Your task to perform on an android device: delete a single message in the gmail app Image 0: 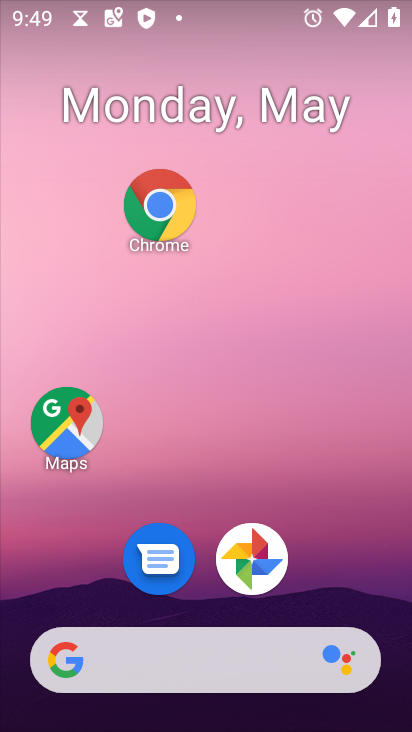
Step 0: drag from (276, 668) to (217, 30)
Your task to perform on an android device: delete a single message in the gmail app Image 1: 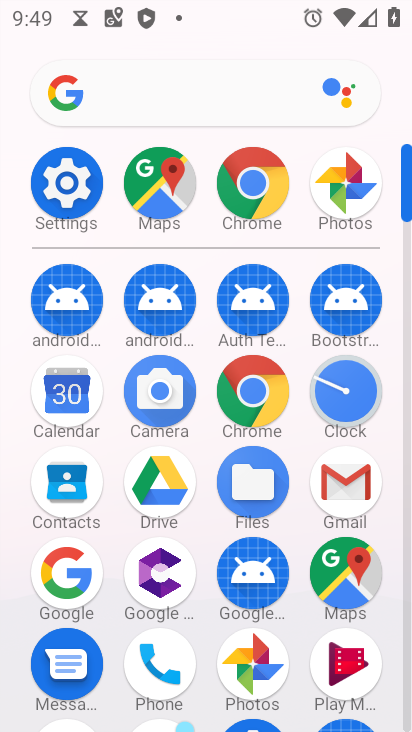
Step 1: click (334, 459)
Your task to perform on an android device: delete a single message in the gmail app Image 2: 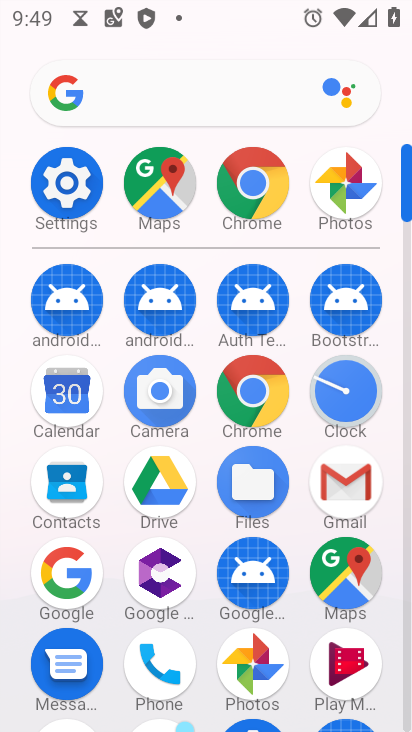
Step 2: click (340, 467)
Your task to perform on an android device: delete a single message in the gmail app Image 3: 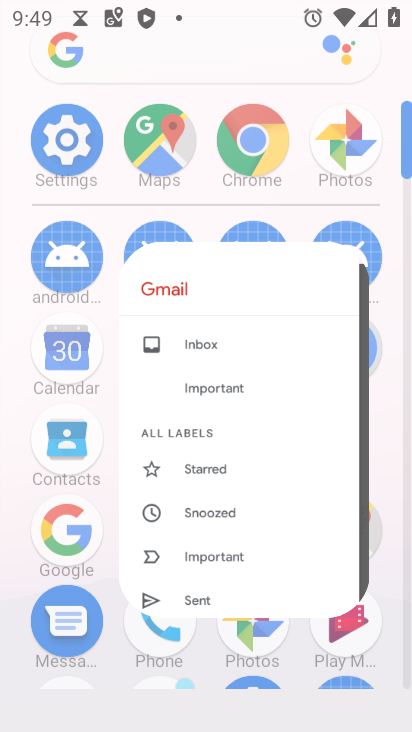
Step 3: click (341, 468)
Your task to perform on an android device: delete a single message in the gmail app Image 4: 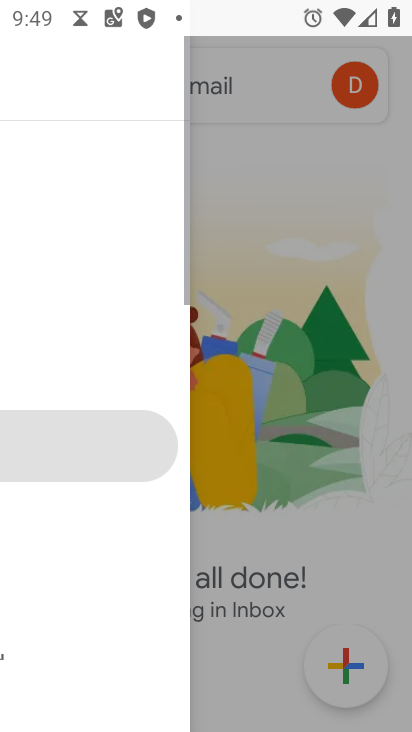
Step 4: click (341, 468)
Your task to perform on an android device: delete a single message in the gmail app Image 5: 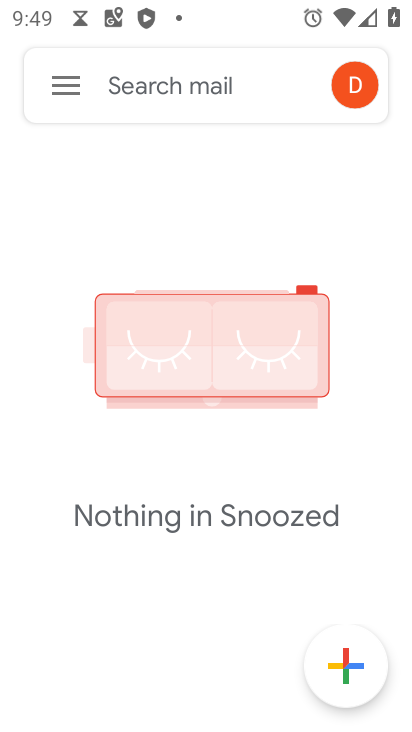
Step 5: click (68, 78)
Your task to perform on an android device: delete a single message in the gmail app Image 6: 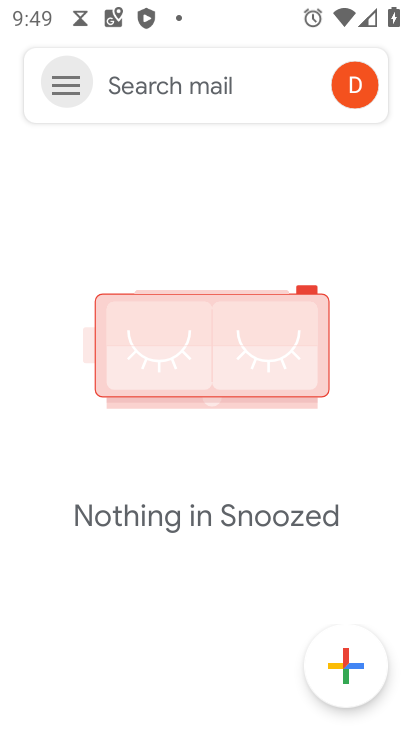
Step 6: click (66, 78)
Your task to perform on an android device: delete a single message in the gmail app Image 7: 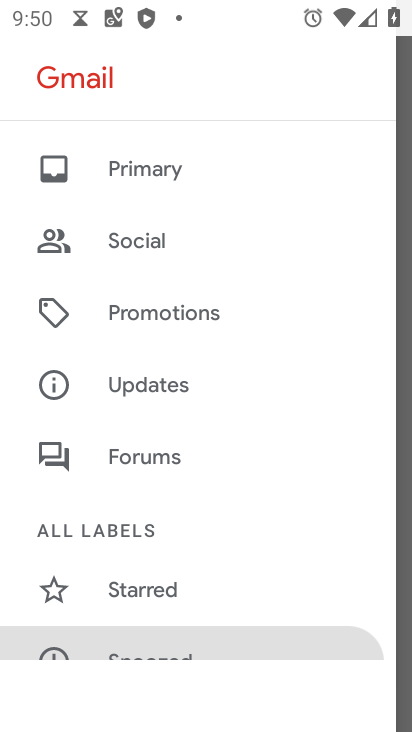
Step 7: click (407, 393)
Your task to perform on an android device: delete a single message in the gmail app Image 8: 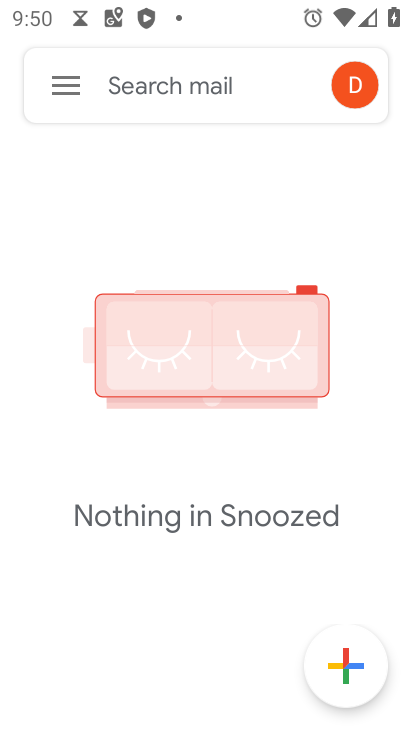
Step 8: click (71, 86)
Your task to perform on an android device: delete a single message in the gmail app Image 9: 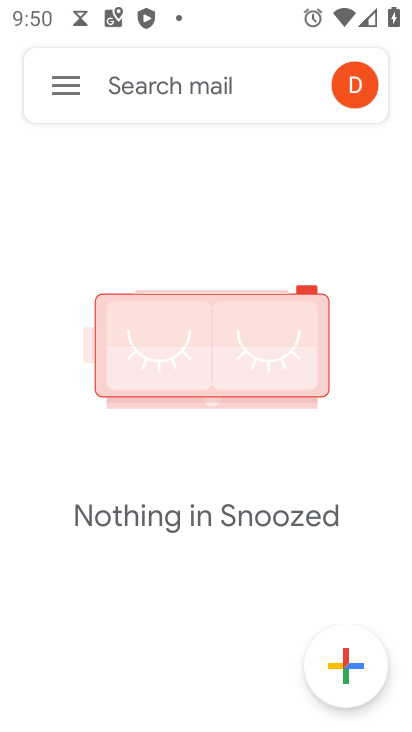
Step 9: click (71, 87)
Your task to perform on an android device: delete a single message in the gmail app Image 10: 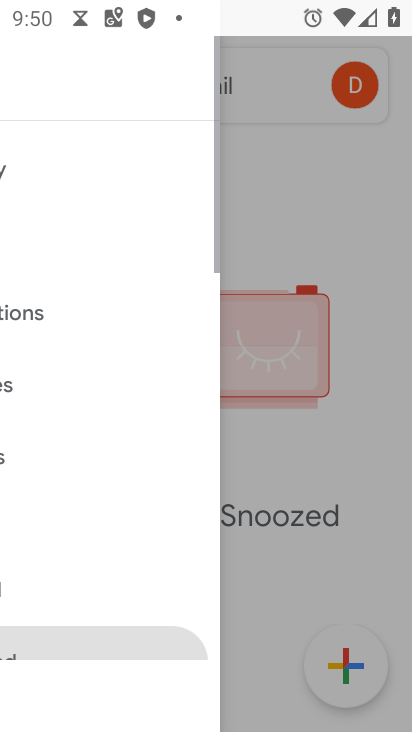
Step 10: click (75, 90)
Your task to perform on an android device: delete a single message in the gmail app Image 11: 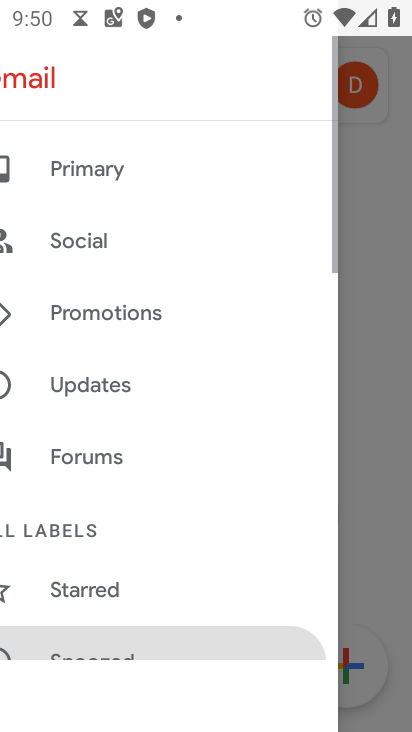
Step 11: click (75, 90)
Your task to perform on an android device: delete a single message in the gmail app Image 12: 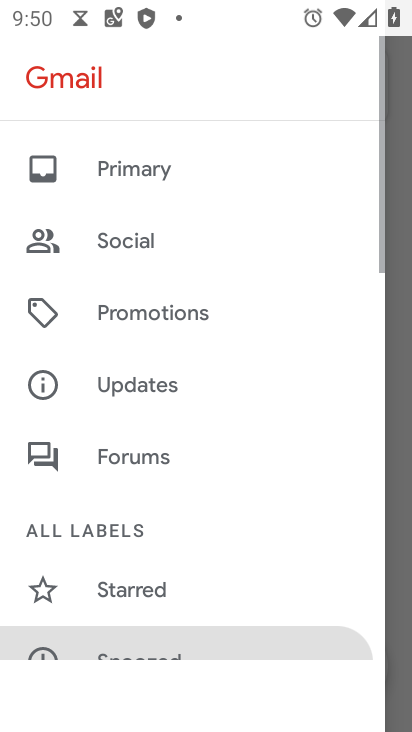
Step 12: click (75, 90)
Your task to perform on an android device: delete a single message in the gmail app Image 13: 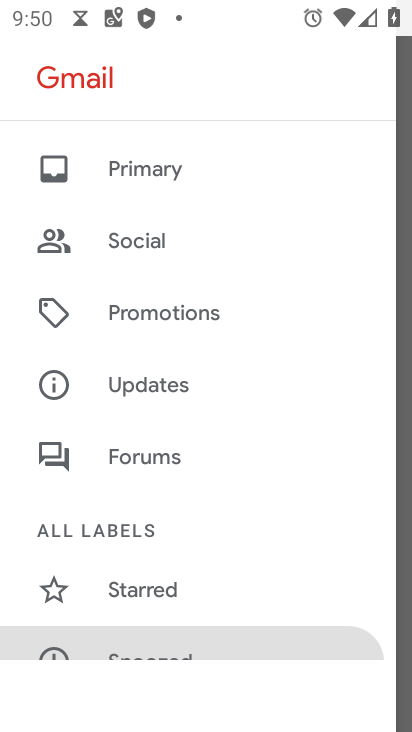
Step 13: drag from (201, 493) to (205, 71)
Your task to perform on an android device: delete a single message in the gmail app Image 14: 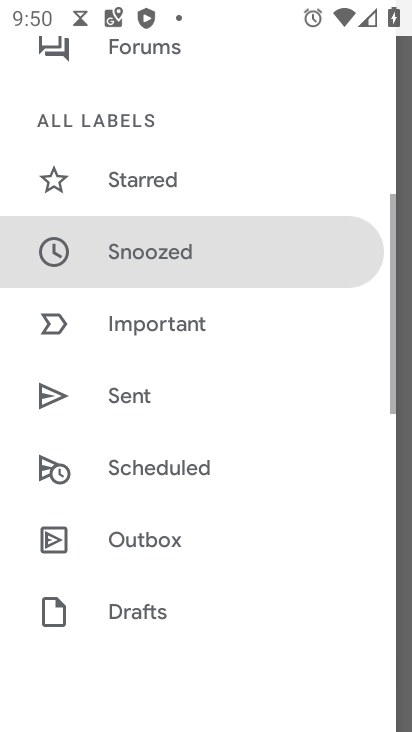
Step 14: drag from (222, 433) to (214, 18)
Your task to perform on an android device: delete a single message in the gmail app Image 15: 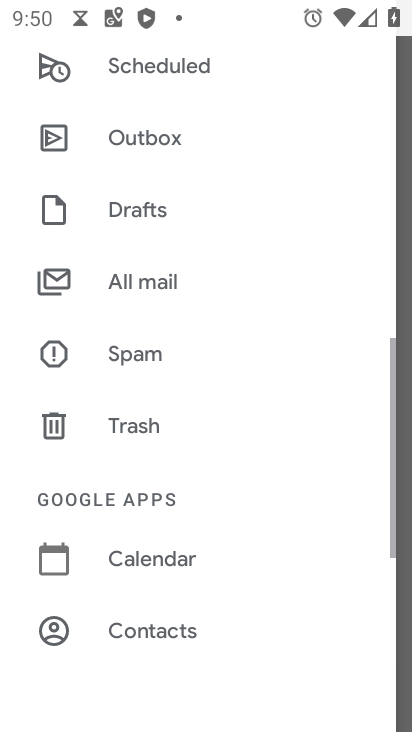
Step 15: drag from (218, 286) to (235, 7)
Your task to perform on an android device: delete a single message in the gmail app Image 16: 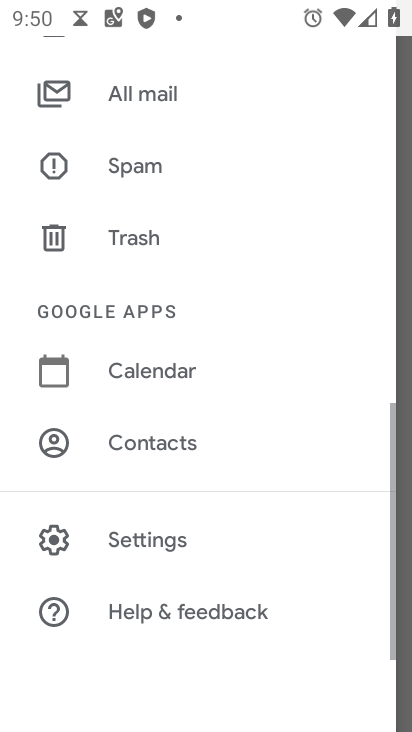
Step 16: drag from (243, 472) to (236, 78)
Your task to perform on an android device: delete a single message in the gmail app Image 17: 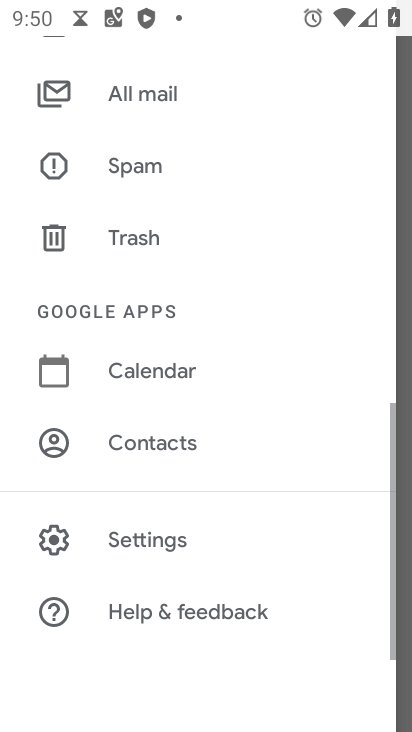
Step 17: click (135, 552)
Your task to perform on an android device: delete a single message in the gmail app Image 18: 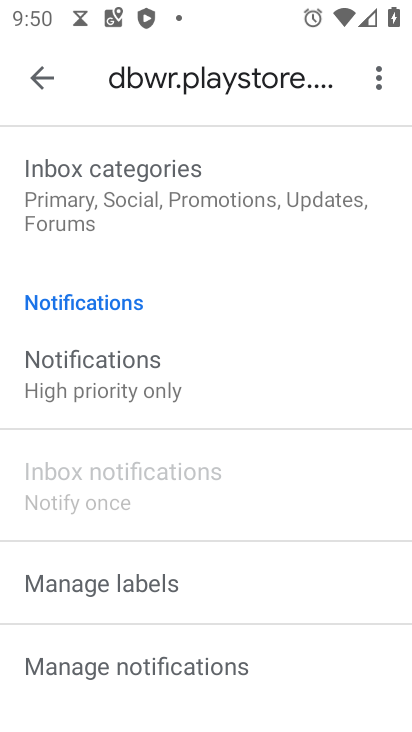
Step 18: drag from (75, 204) to (147, 416)
Your task to perform on an android device: delete a single message in the gmail app Image 19: 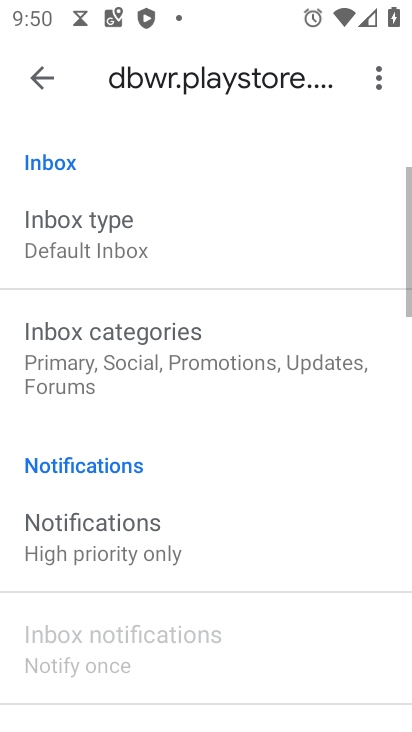
Step 19: drag from (98, 175) to (171, 693)
Your task to perform on an android device: delete a single message in the gmail app Image 20: 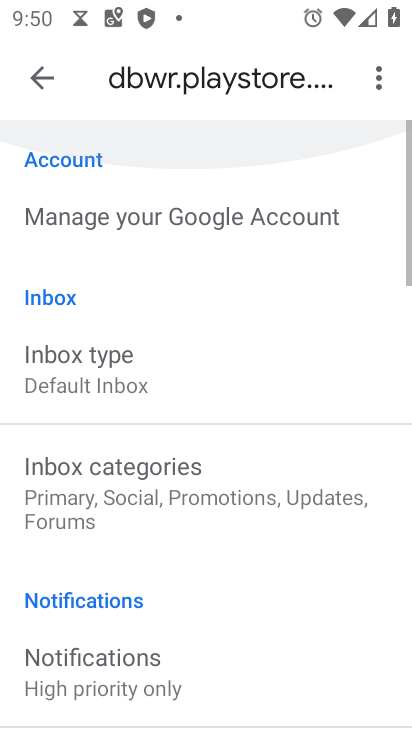
Step 20: drag from (105, 194) to (195, 593)
Your task to perform on an android device: delete a single message in the gmail app Image 21: 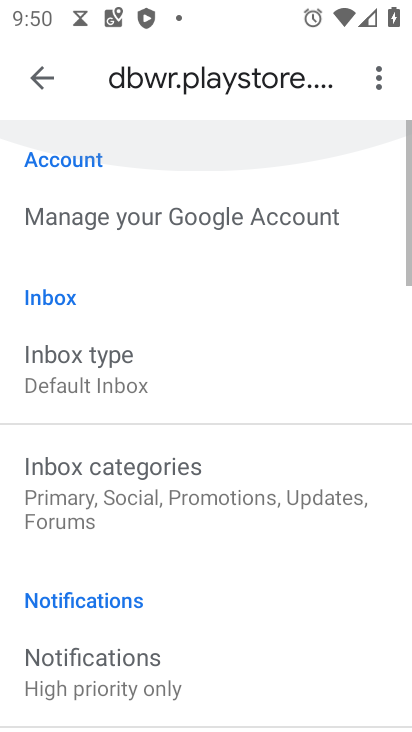
Step 21: drag from (198, 652) to (206, 708)
Your task to perform on an android device: delete a single message in the gmail app Image 22: 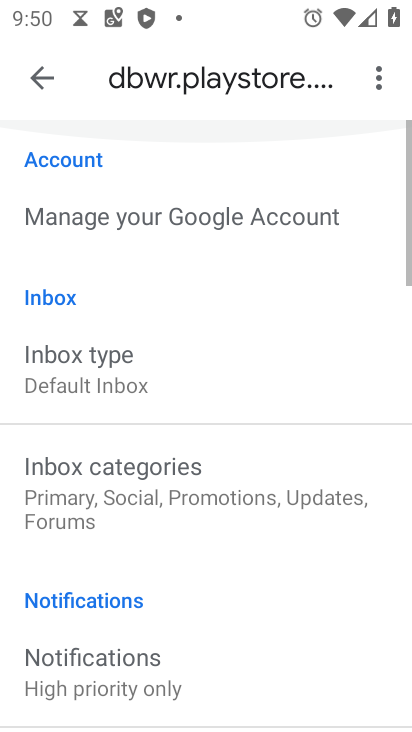
Step 22: drag from (126, 408) to (131, 648)
Your task to perform on an android device: delete a single message in the gmail app Image 23: 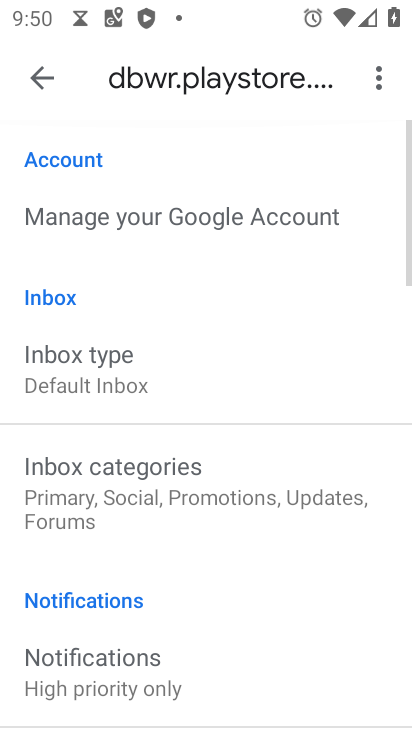
Step 23: click (47, 77)
Your task to perform on an android device: delete a single message in the gmail app Image 24: 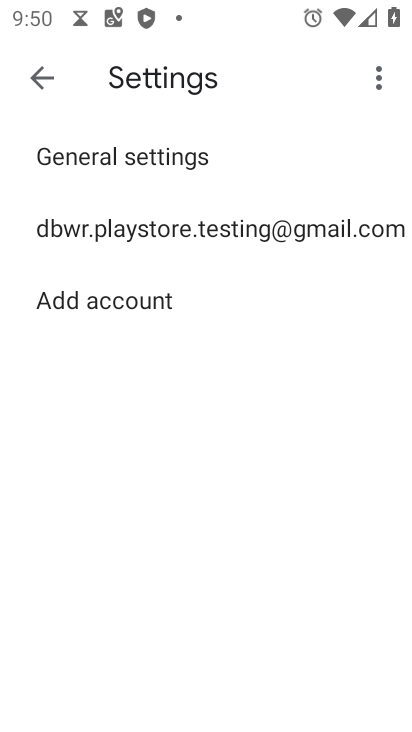
Step 24: click (38, 69)
Your task to perform on an android device: delete a single message in the gmail app Image 25: 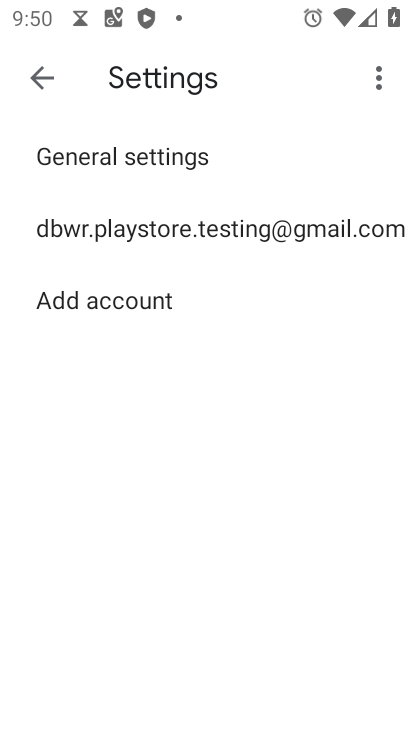
Step 25: click (38, 69)
Your task to perform on an android device: delete a single message in the gmail app Image 26: 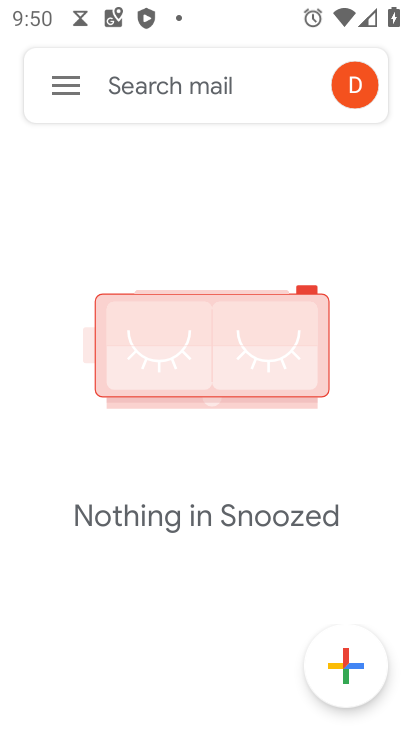
Step 26: press home button
Your task to perform on an android device: delete a single message in the gmail app Image 27: 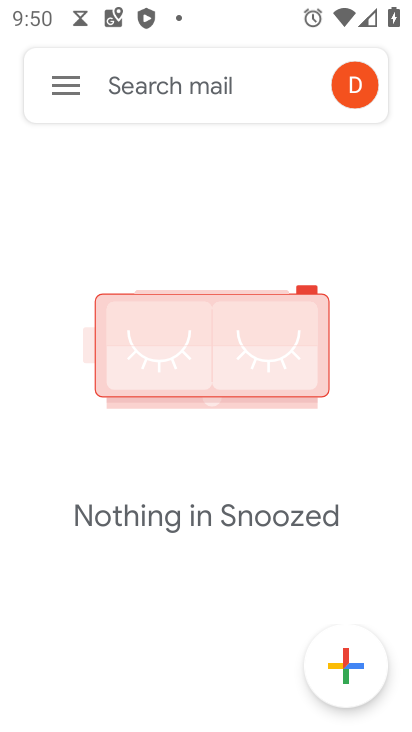
Step 27: press home button
Your task to perform on an android device: delete a single message in the gmail app Image 28: 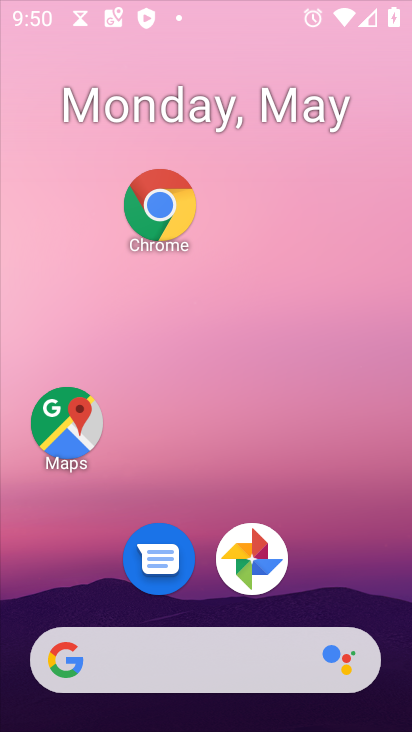
Step 28: press home button
Your task to perform on an android device: delete a single message in the gmail app Image 29: 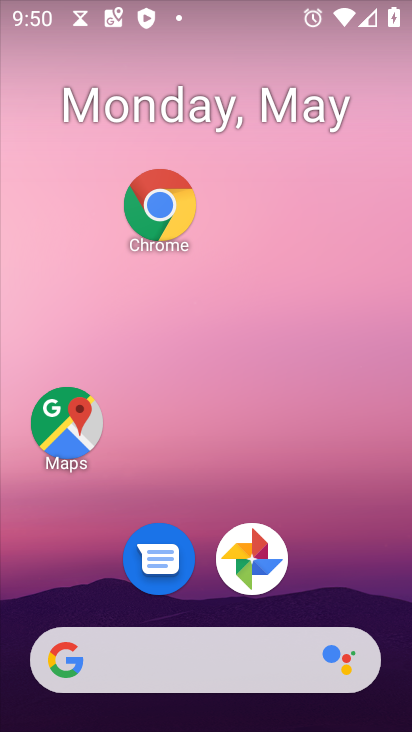
Step 29: drag from (174, 589) to (118, 54)
Your task to perform on an android device: delete a single message in the gmail app Image 30: 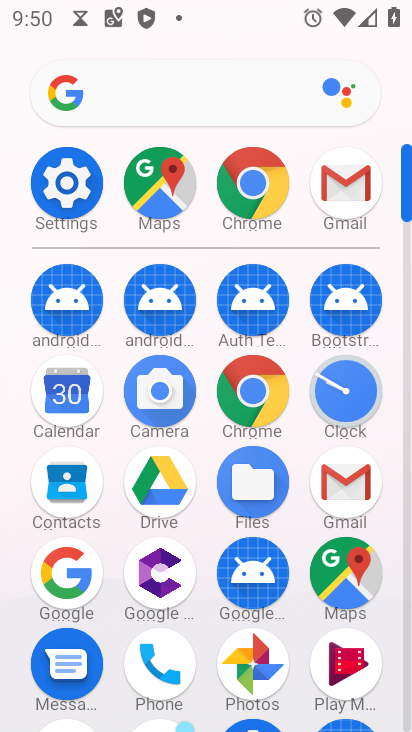
Step 30: click (332, 485)
Your task to perform on an android device: delete a single message in the gmail app Image 31: 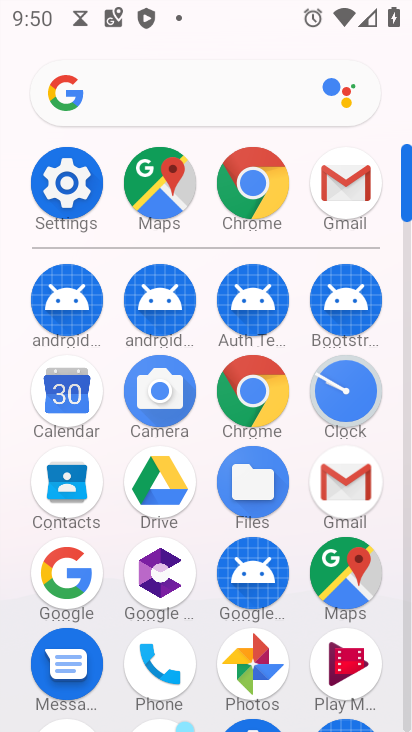
Step 31: click (336, 489)
Your task to perform on an android device: delete a single message in the gmail app Image 32: 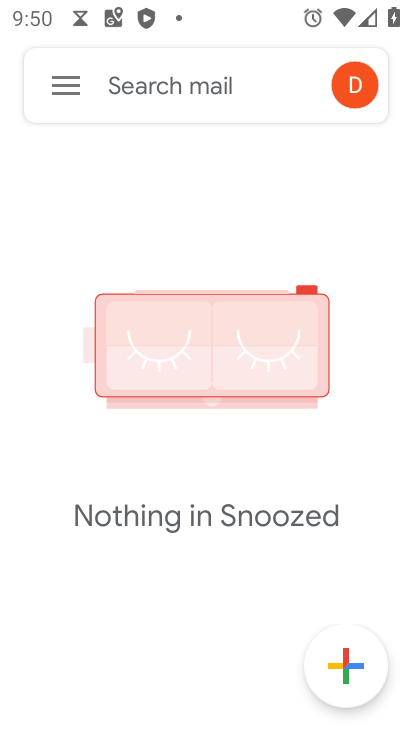
Step 32: click (65, 84)
Your task to perform on an android device: delete a single message in the gmail app Image 33: 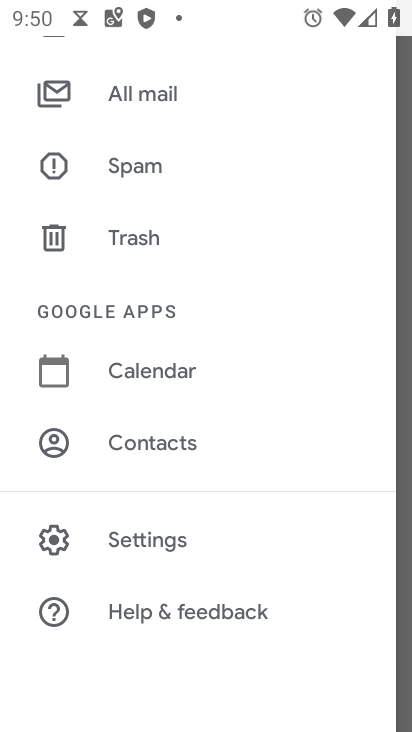
Step 33: click (150, 88)
Your task to perform on an android device: delete a single message in the gmail app Image 34: 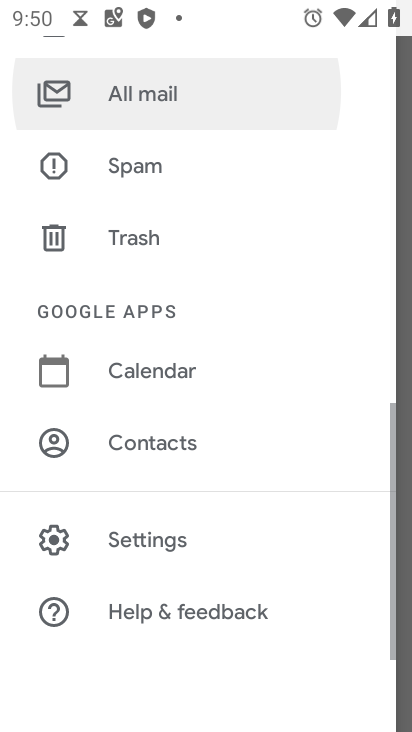
Step 34: click (154, 87)
Your task to perform on an android device: delete a single message in the gmail app Image 35: 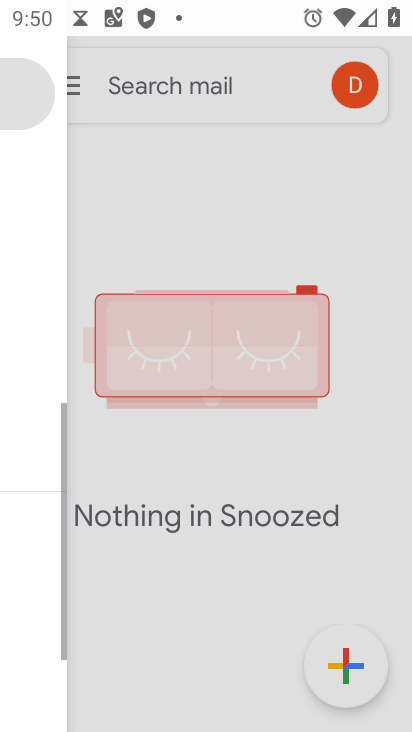
Step 35: click (157, 87)
Your task to perform on an android device: delete a single message in the gmail app Image 36: 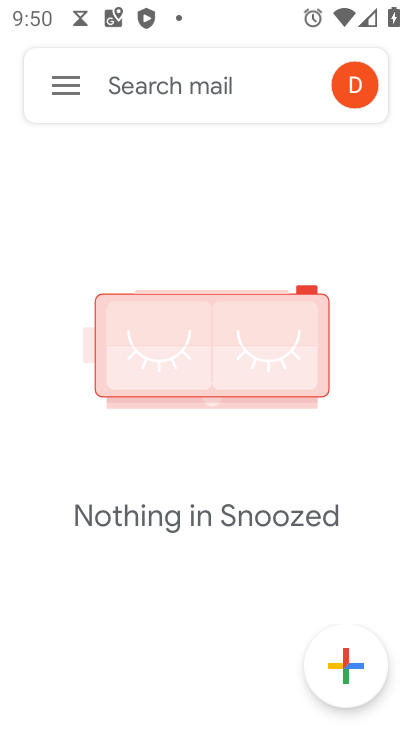
Step 36: click (158, 87)
Your task to perform on an android device: delete a single message in the gmail app Image 37: 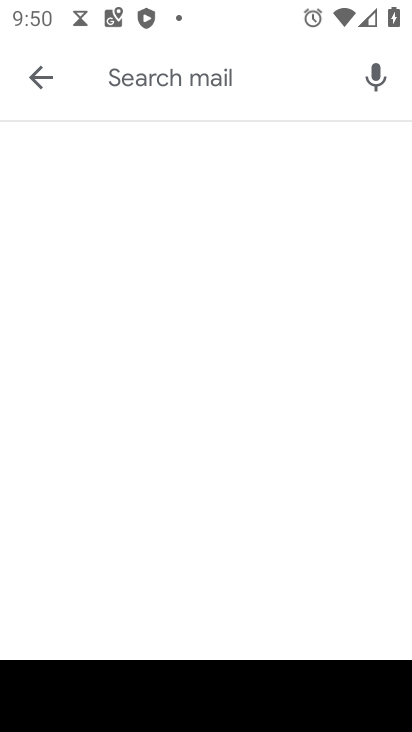
Step 37: click (38, 65)
Your task to perform on an android device: delete a single message in the gmail app Image 38: 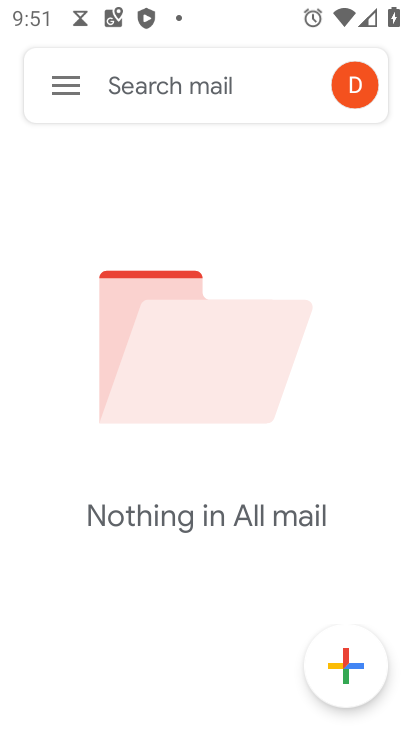
Step 38: click (67, 86)
Your task to perform on an android device: delete a single message in the gmail app Image 39: 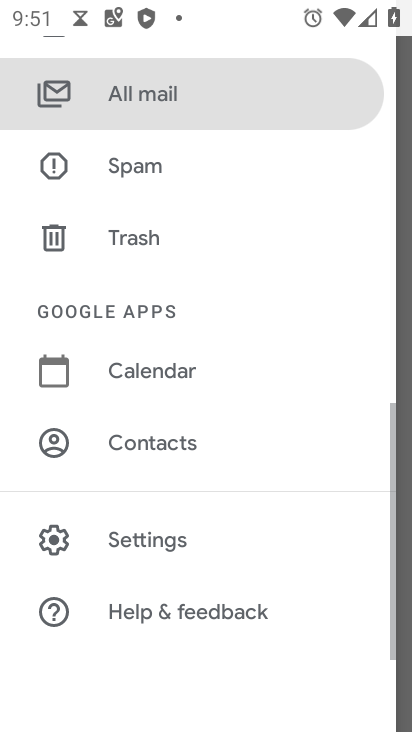
Step 39: click (144, 102)
Your task to perform on an android device: delete a single message in the gmail app Image 40: 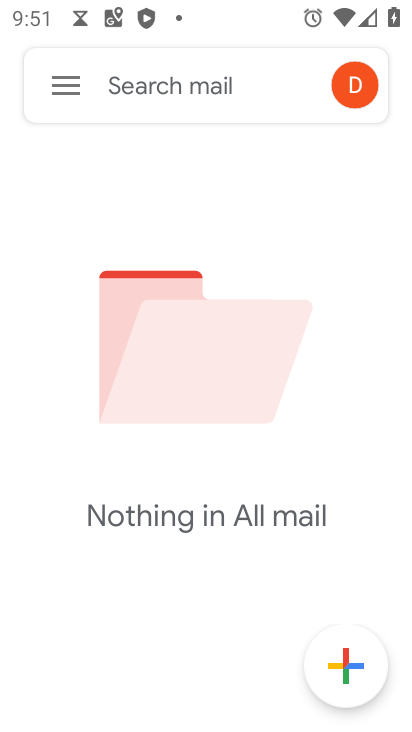
Step 40: task complete